Your task to perform on an android device: Search for "macbook air" on newegg, select the first entry, add it to the cart, then select checkout. Image 0: 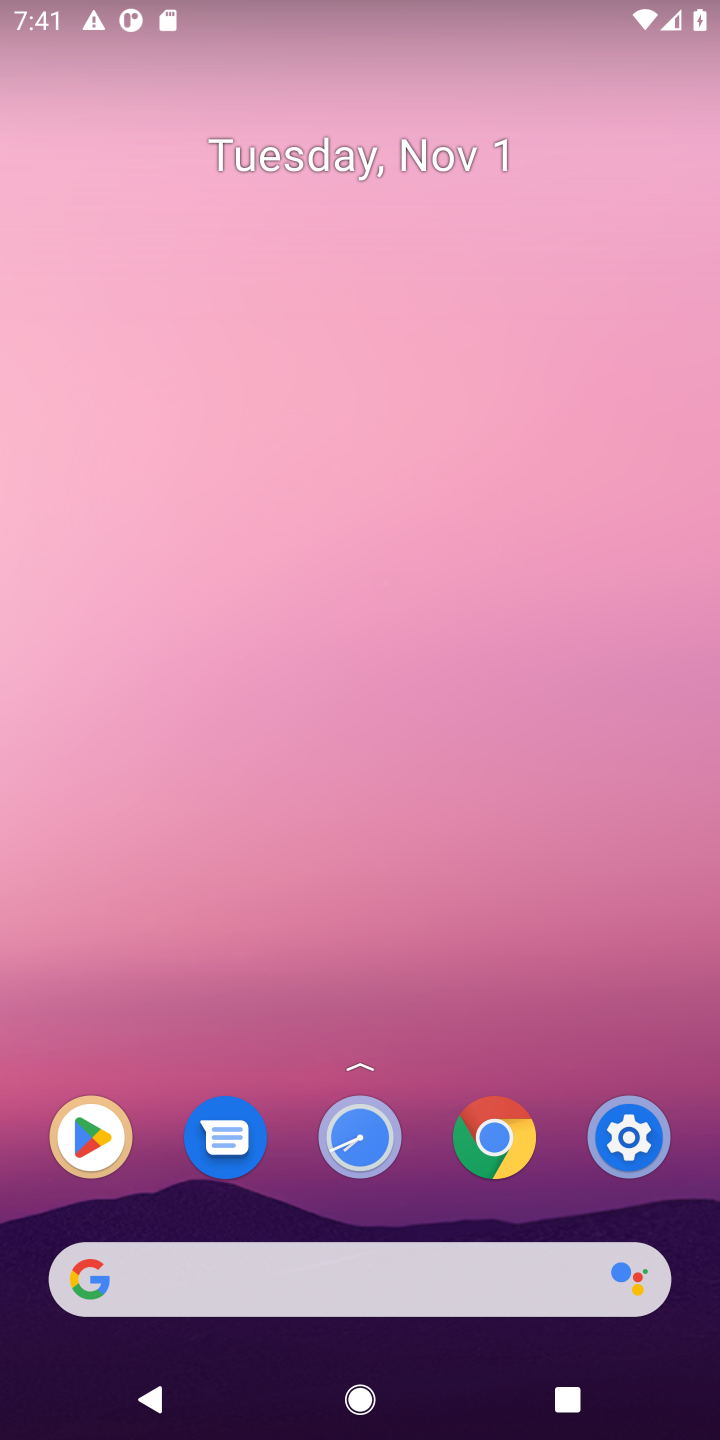
Step 0: click (483, 1140)
Your task to perform on an android device: Search for "macbook air" on newegg, select the first entry, add it to the cart, then select checkout. Image 1: 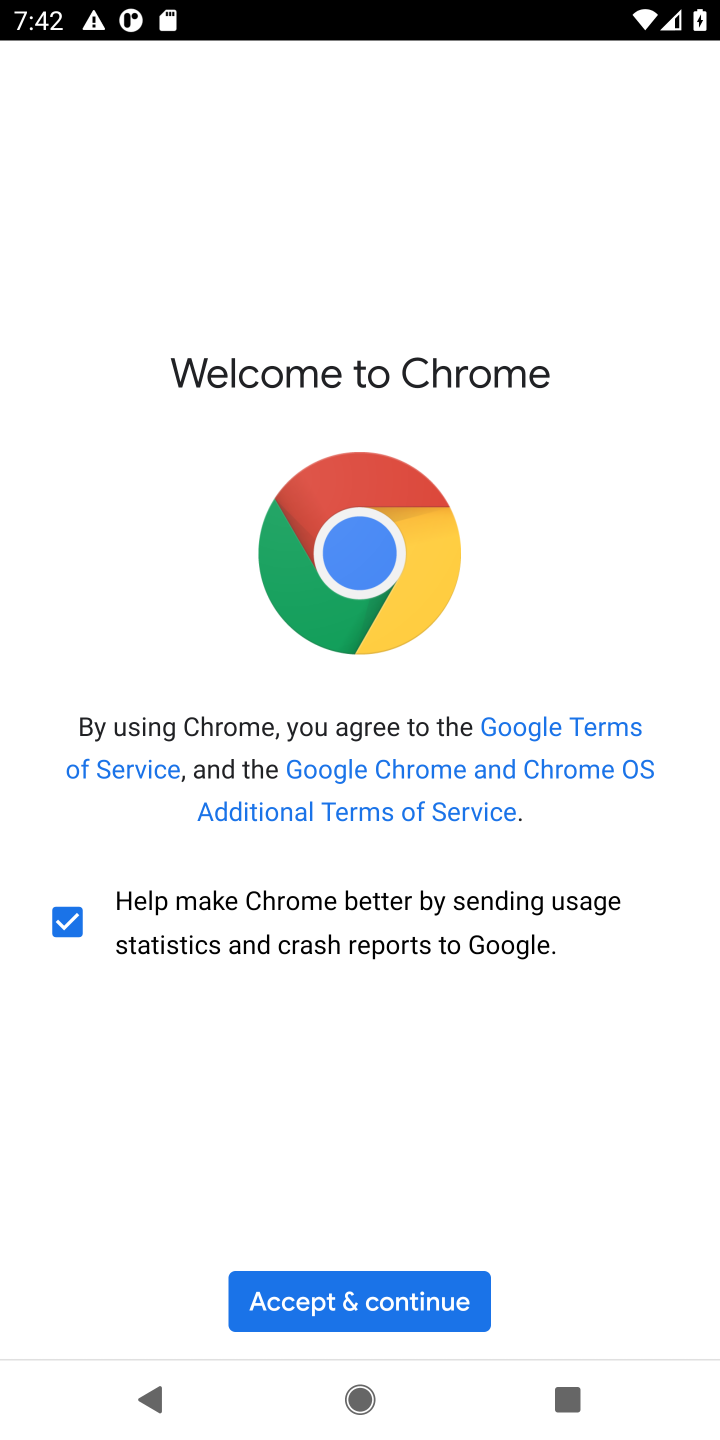
Step 1: click (364, 1320)
Your task to perform on an android device: Search for "macbook air" on newegg, select the first entry, add it to the cart, then select checkout. Image 2: 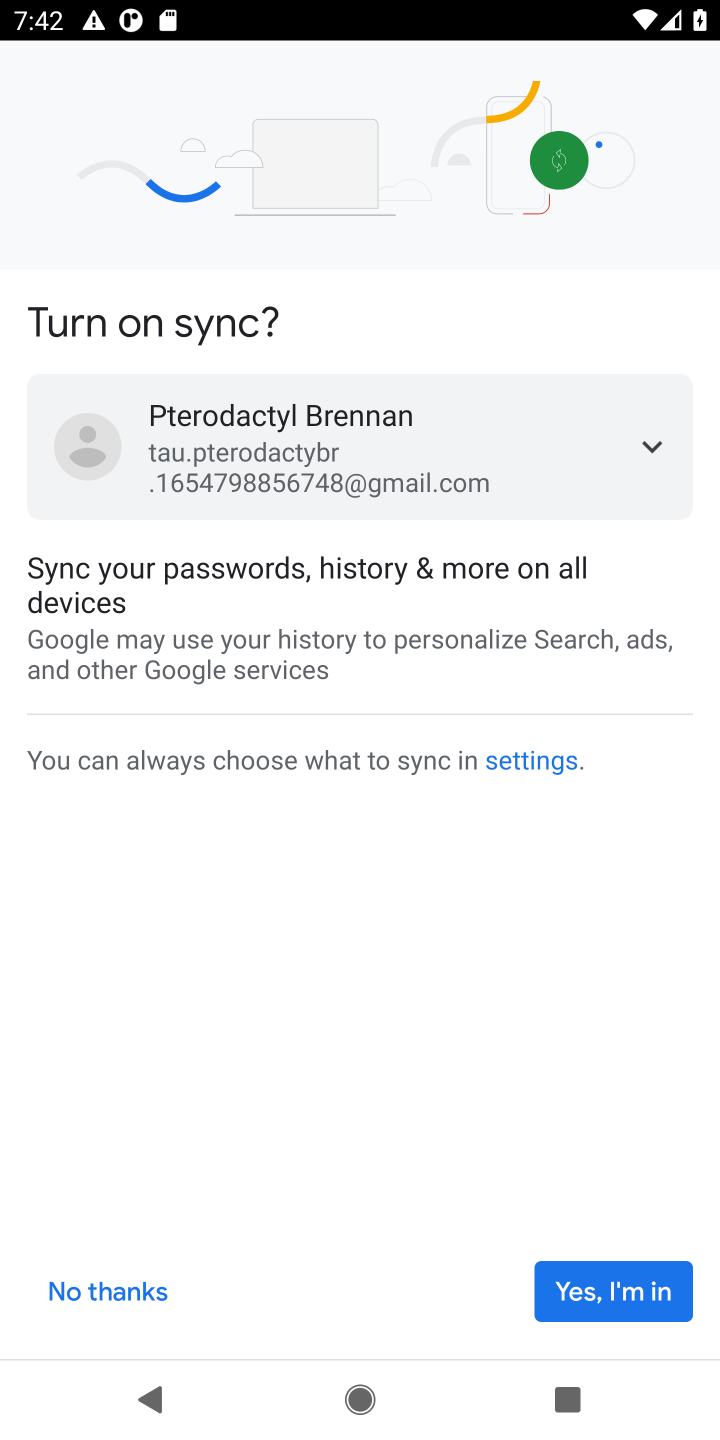
Step 2: click (653, 1258)
Your task to perform on an android device: Search for "macbook air" on newegg, select the first entry, add it to the cart, then select checkout. Image 3: 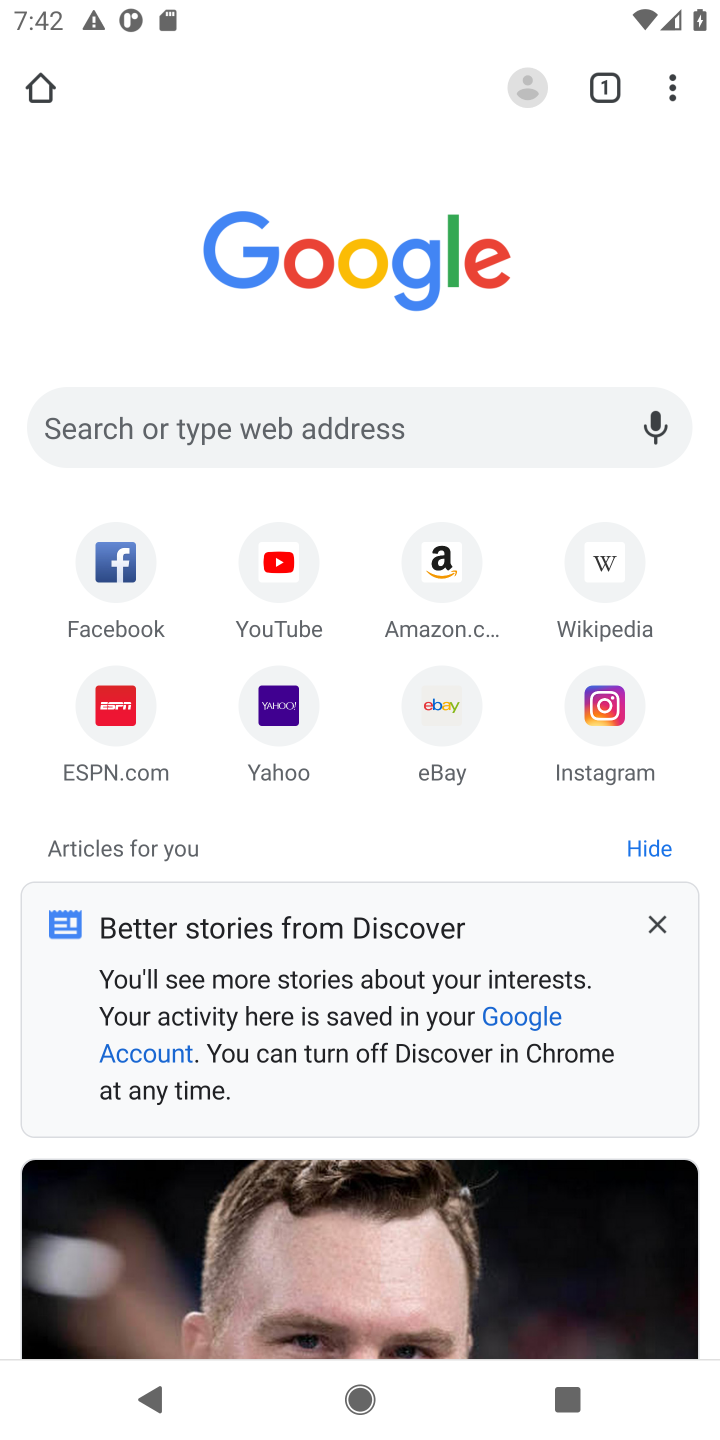
Step 3: click (413, 428)
Your task to perform on an android device: Search for "macbook air" on newegg, select the first entry, add it to the cart, then select checkout. Image 4: 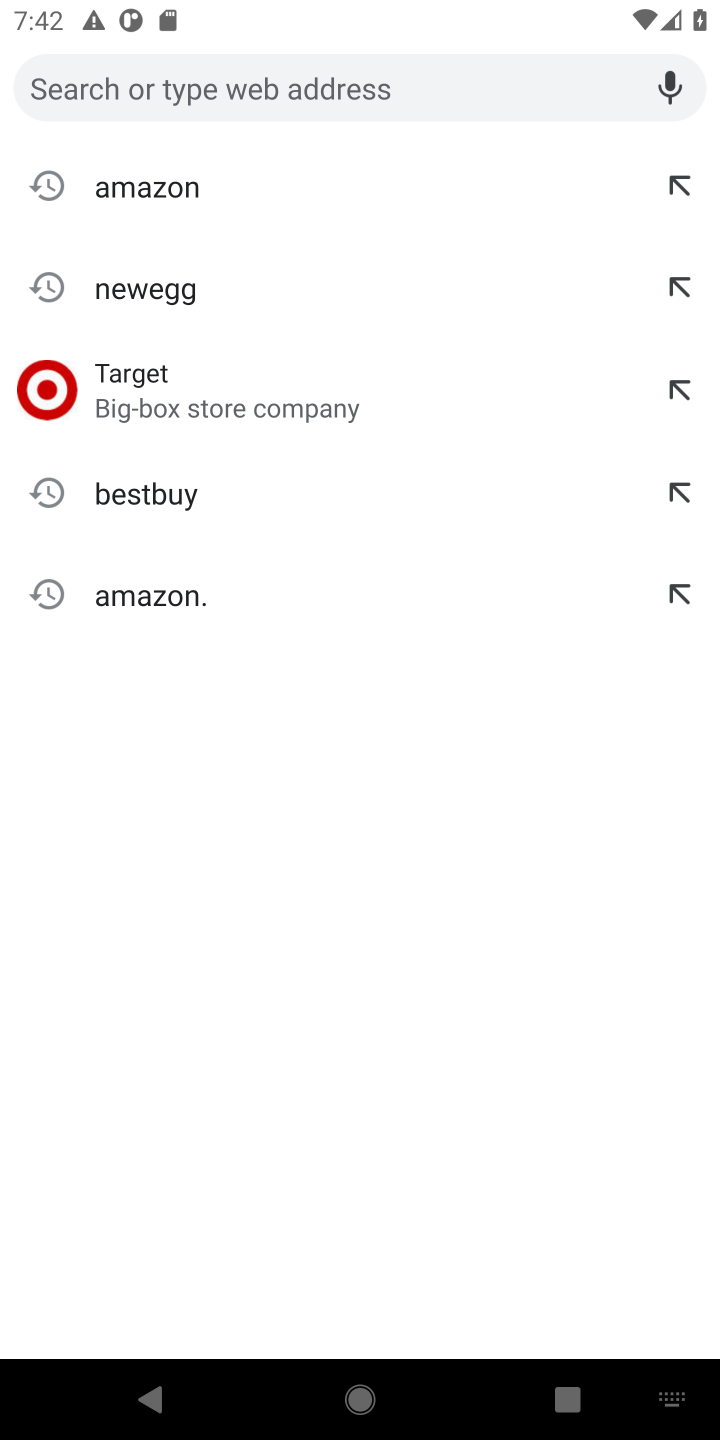
Step 4: type "newegg"
Your task to perform on an android device: Search for "macbook air" on newegg, select the first entry, add it to the cart, then select checkout. Image 5: 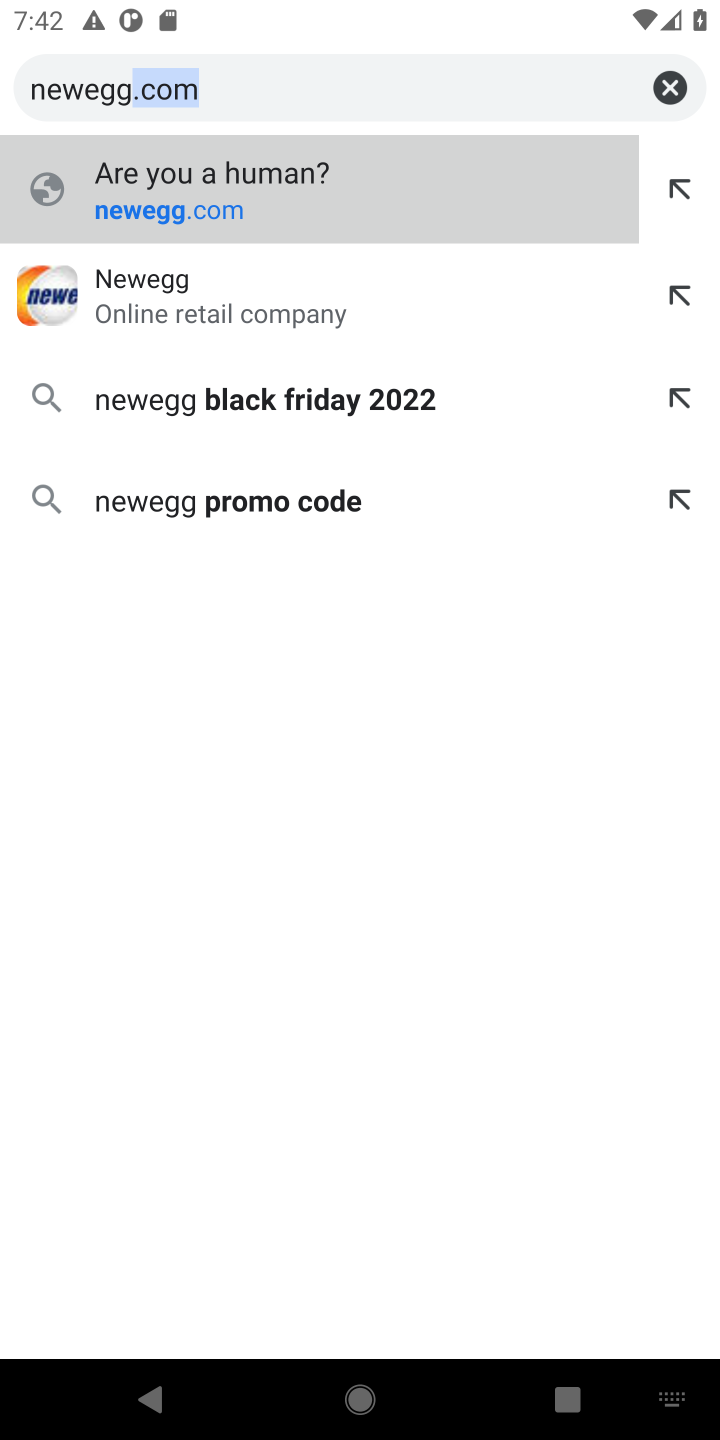
Step 5: press enter
Your task to perform on an android device: Search for "macbook air" on newegg, select the first entry, add it to the cart, then select checkout. Image 6: 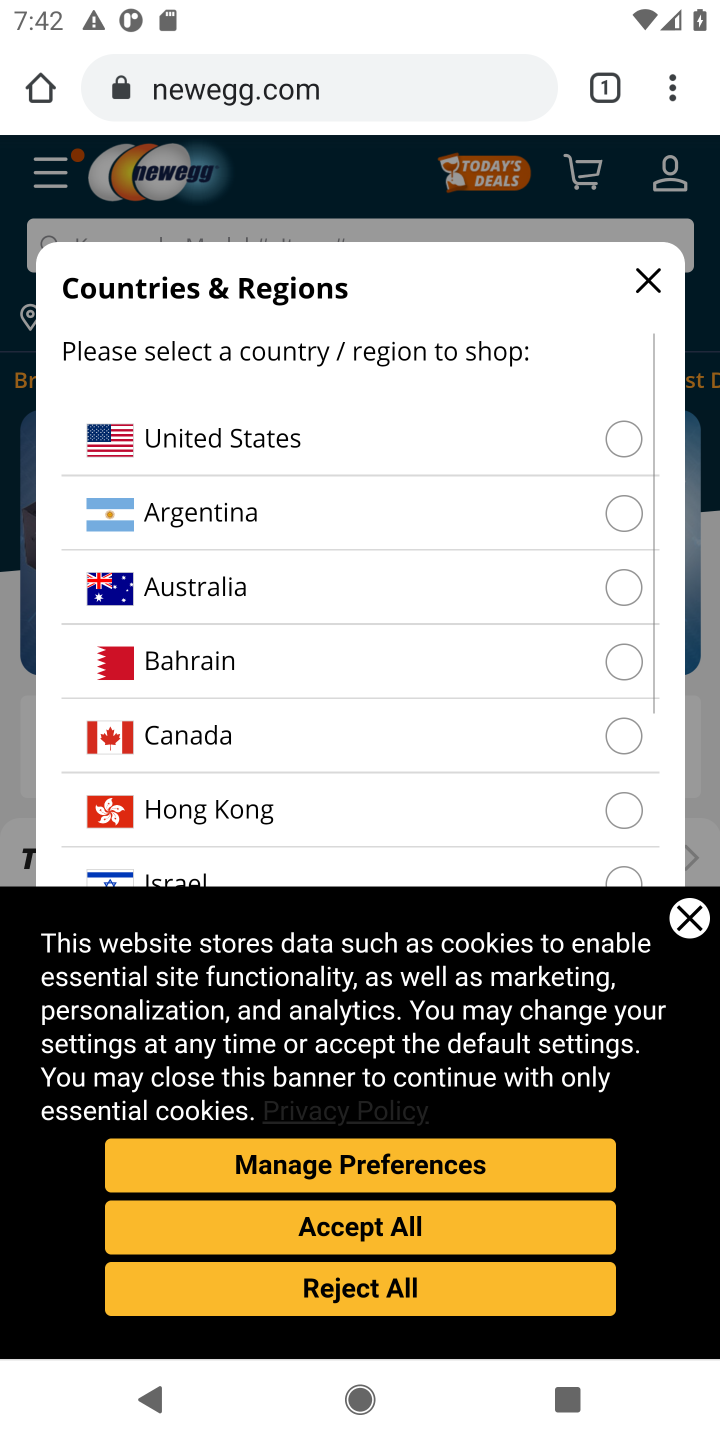
Step 6: click (635, 436)
Your task to perform on an android device: Search for "macbook air" on newegg, select the first entry, add it to the cart, then select checkout. Image 7: 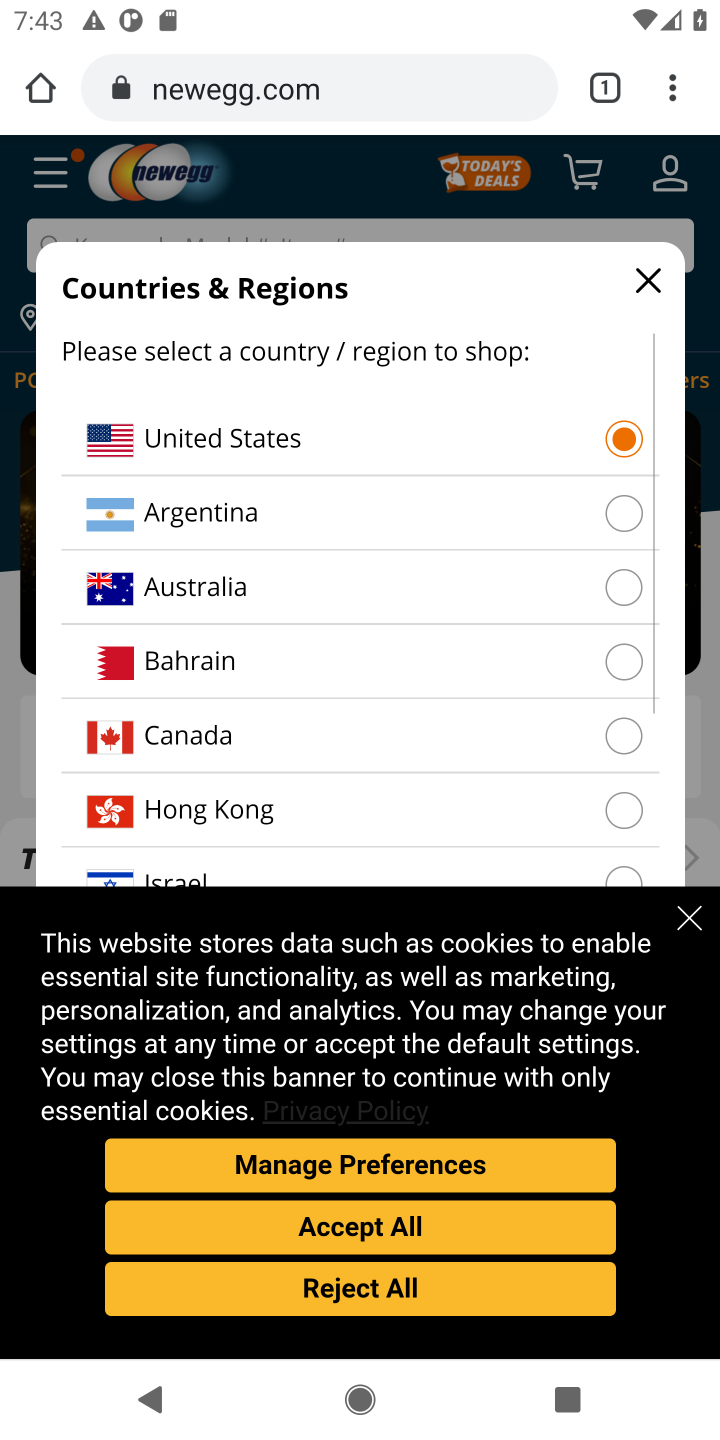
Step 7: click (404, 1236)
Your task to perform on an android device: Search for "macbook air" on newegg, select the first entry, add it to the cart, then select checkout. Image 8: 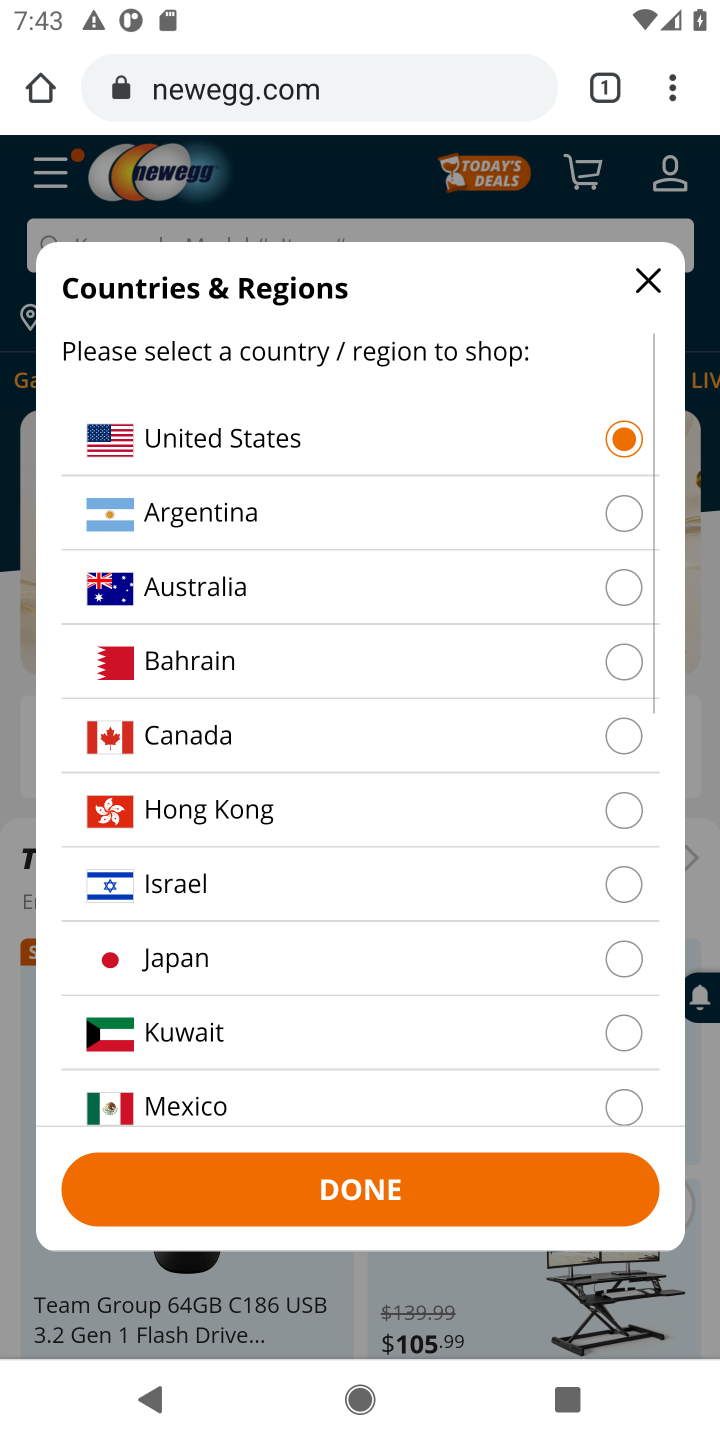
Step 8: click (365, 1197)
Your task to perform on an android device: Search for "macbook air" on newegg, select the first entry, add it to the cart, then select checkout. Image 9: 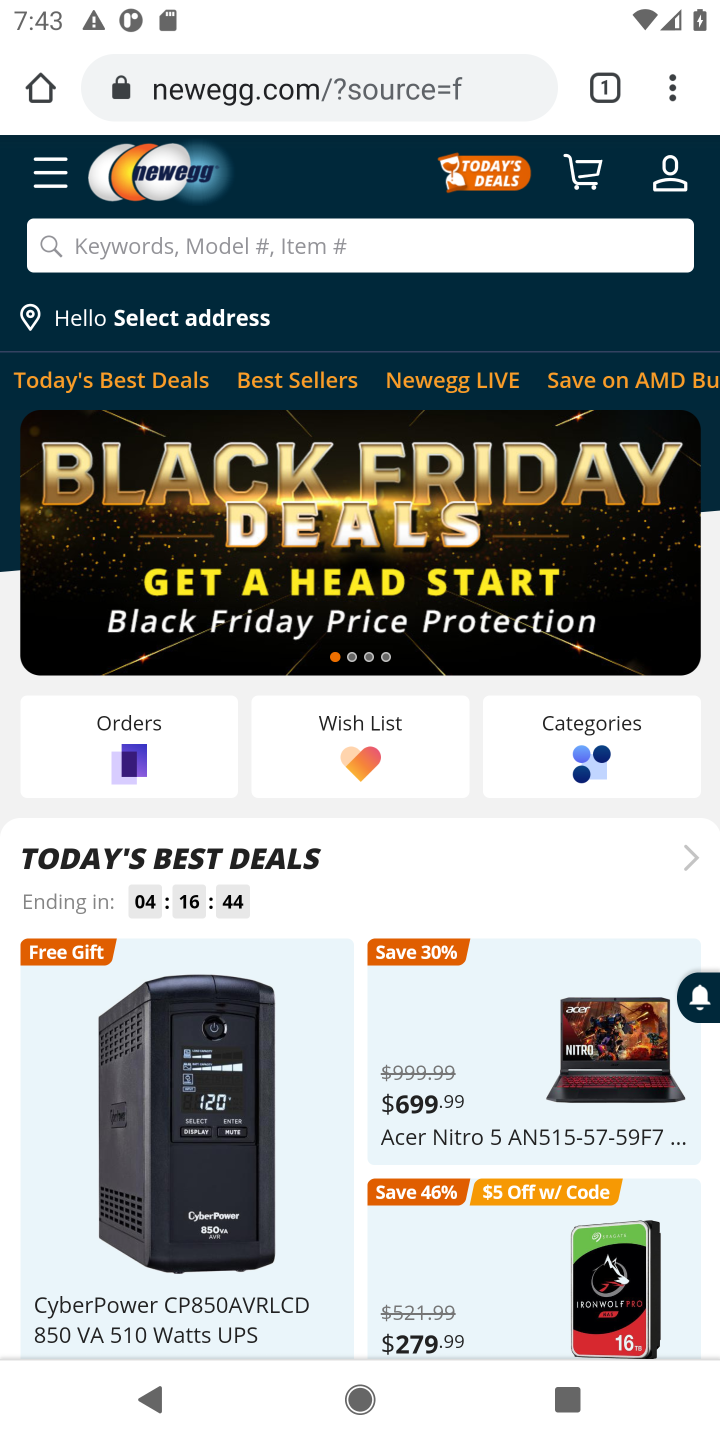
Step 9: click (340, 255)
Your task to perform on an android device: Search for "macbook air" on newegg, select the first entry, add it to the cart, then select checkout. Image 10: 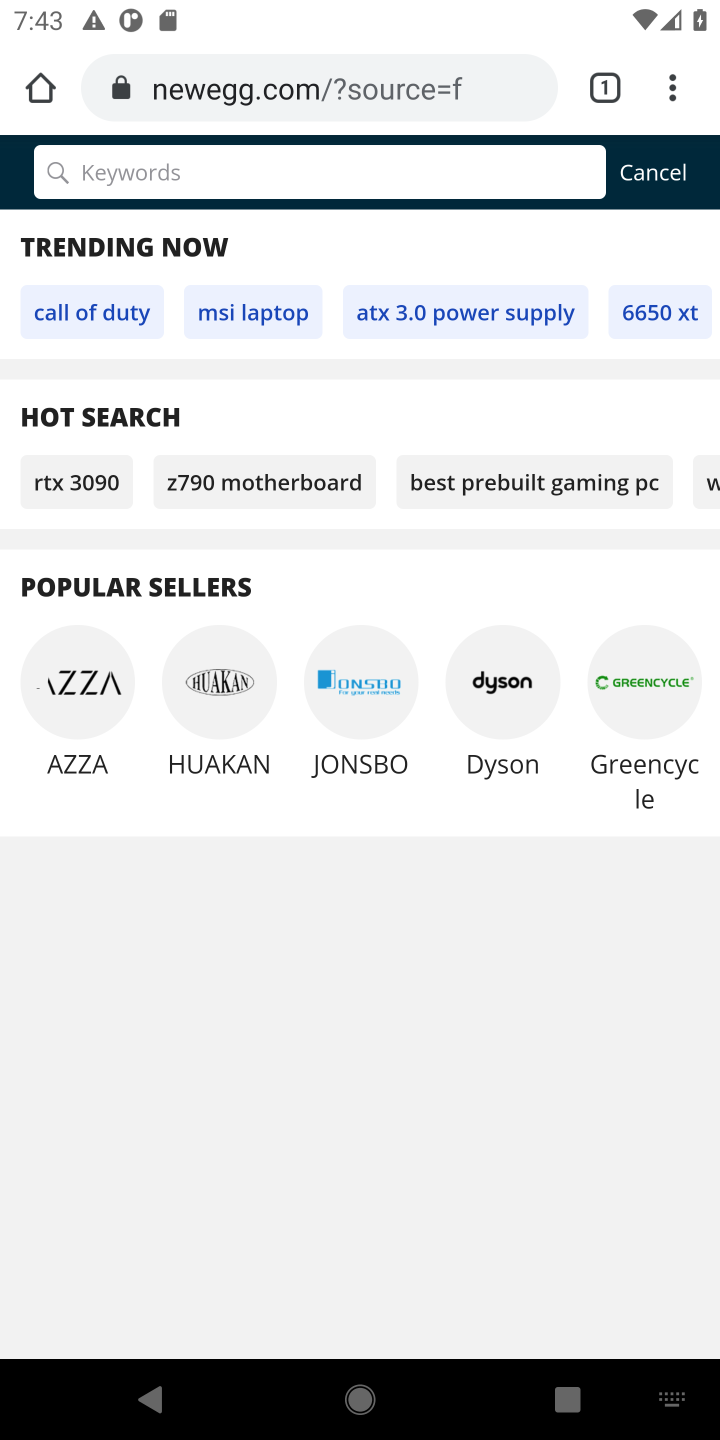
Step 10: type "macbook air"
Your task to perform on an android device: Search for "macbook air" on newegg, select the first entry, add it to the cart, then select checkout. Image 11: 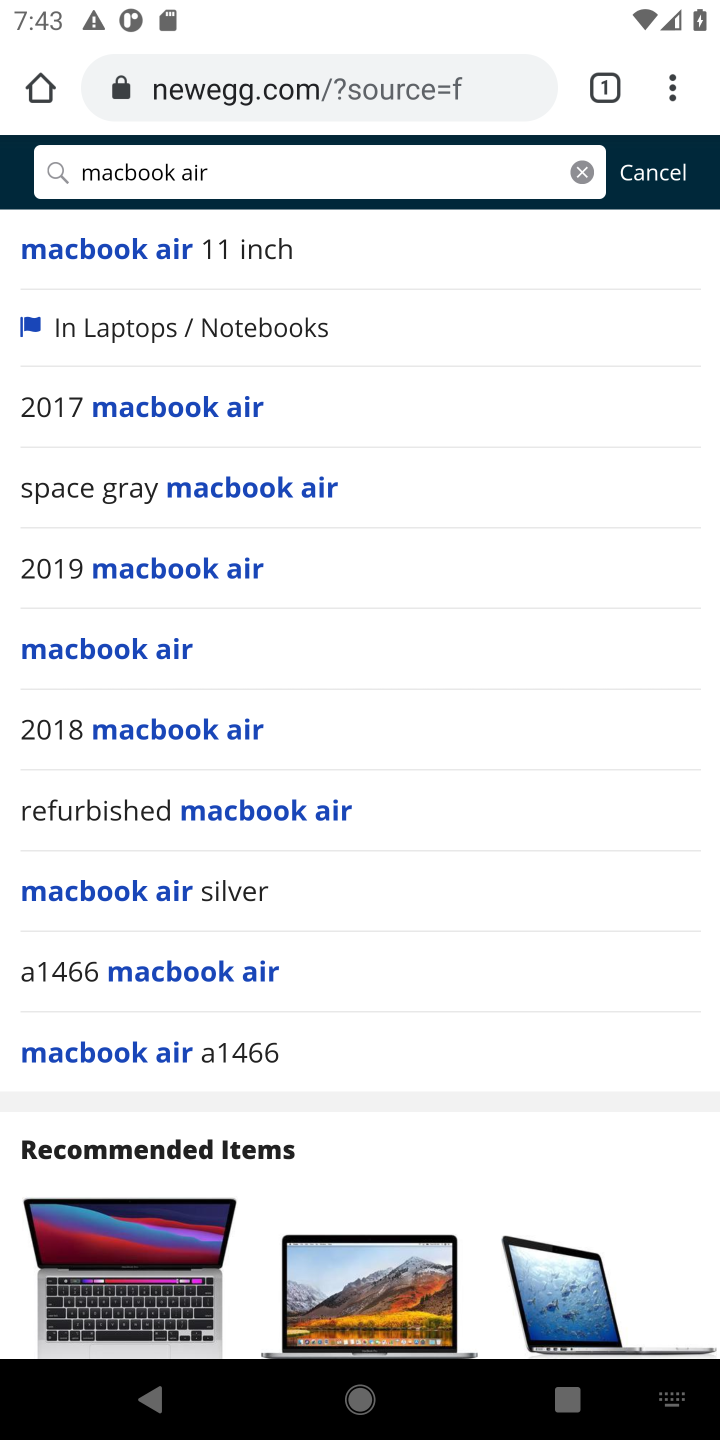
Step 11: press enter
Your task to perform on an android device: Search for "macbook air" on newegg, select the first entry, add it to the cart, then select checkout. Image 12: 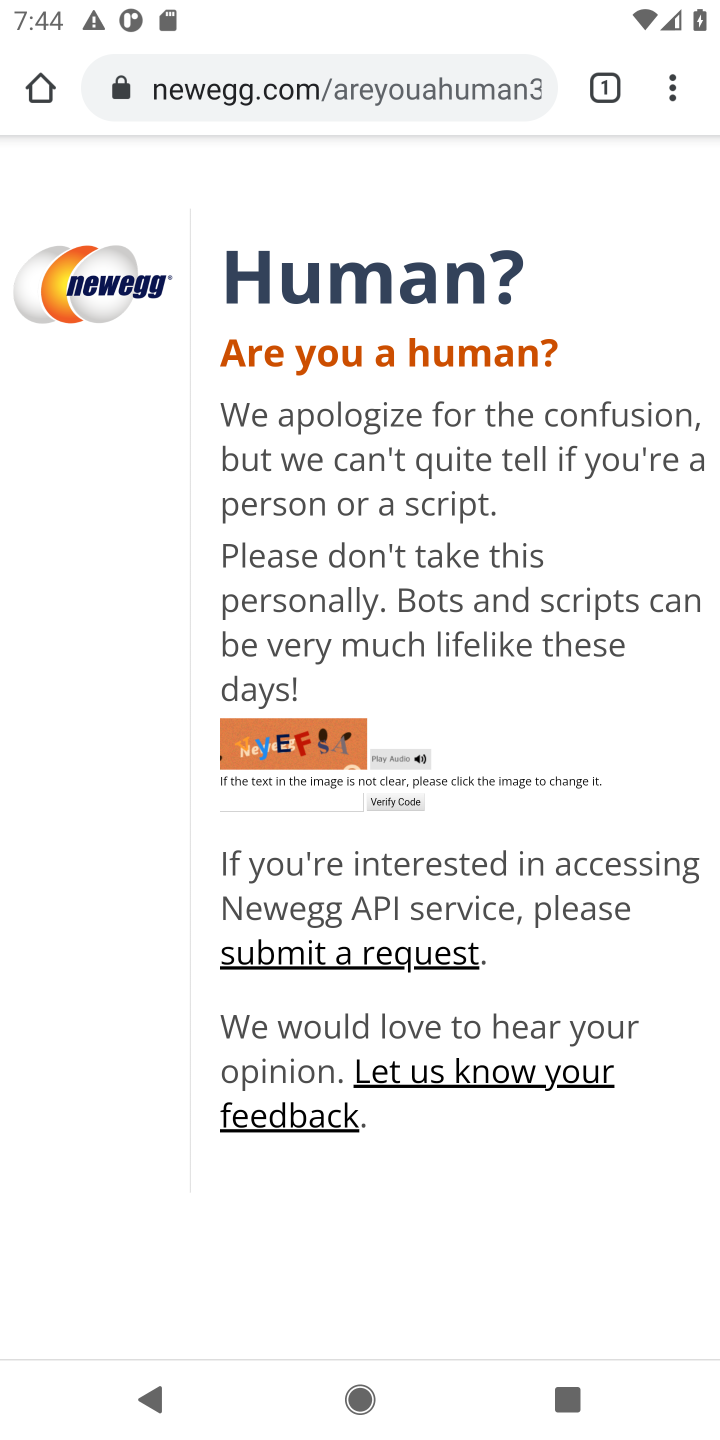
Step 12: task complete